Your task to perform on an android device: Open the Play Movies app and select the watchlist tab. Image 0: 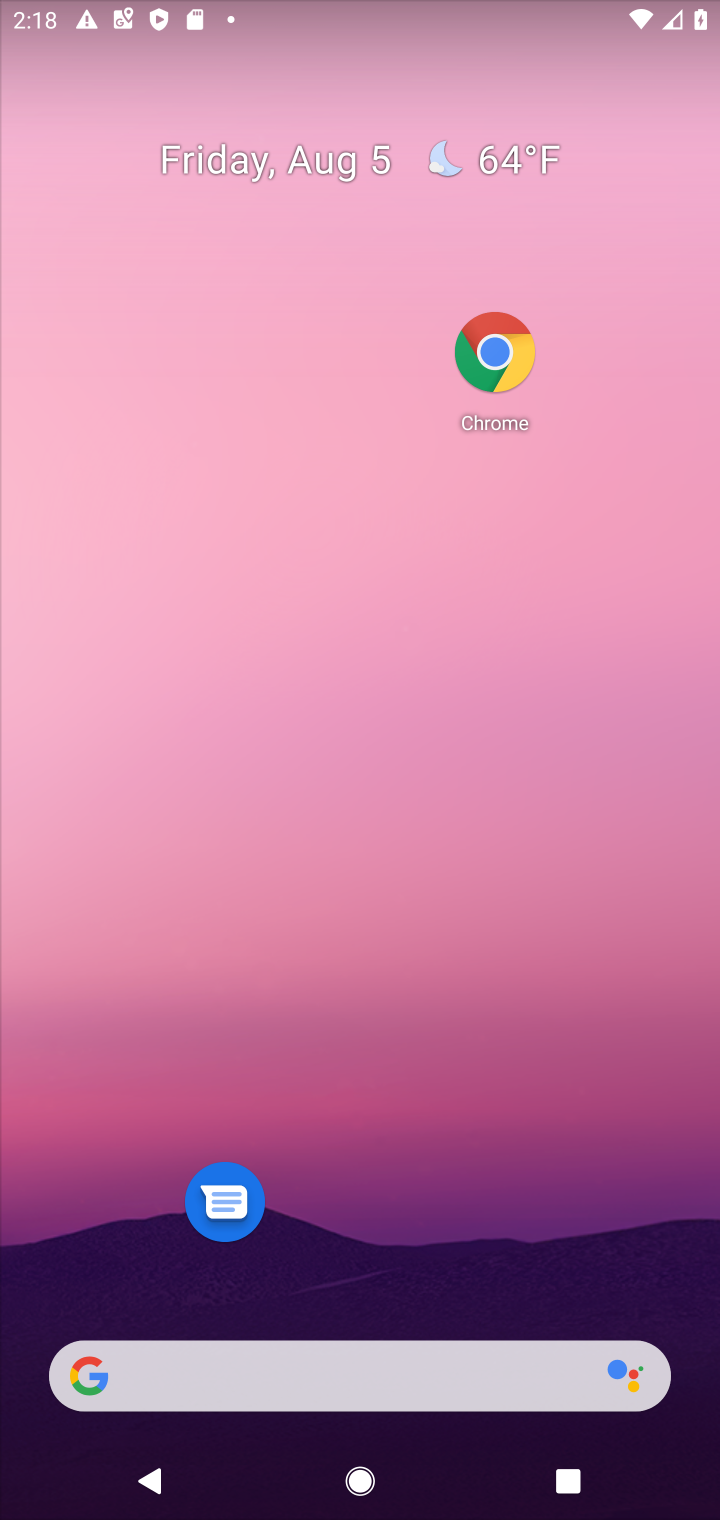
Step 0: drag from (500, 1111) to (223, 102)
Your task to perform on an android device: Open the Play Movies app and select the watchlist tab. Image 1: 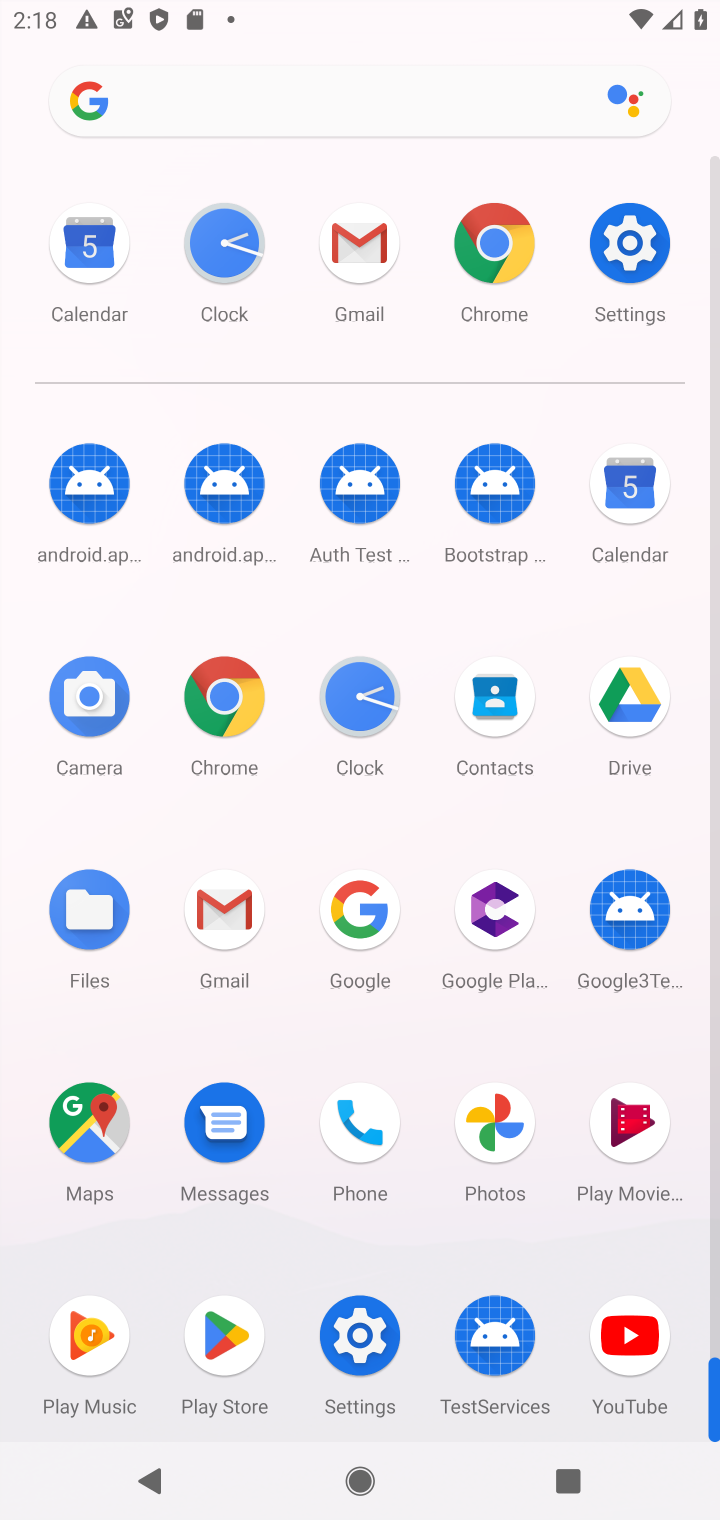
Step 1: click (641, 1127)
Your task to perform on an android device: Open the Play Movies app and select the watchlist tab. Image 2: 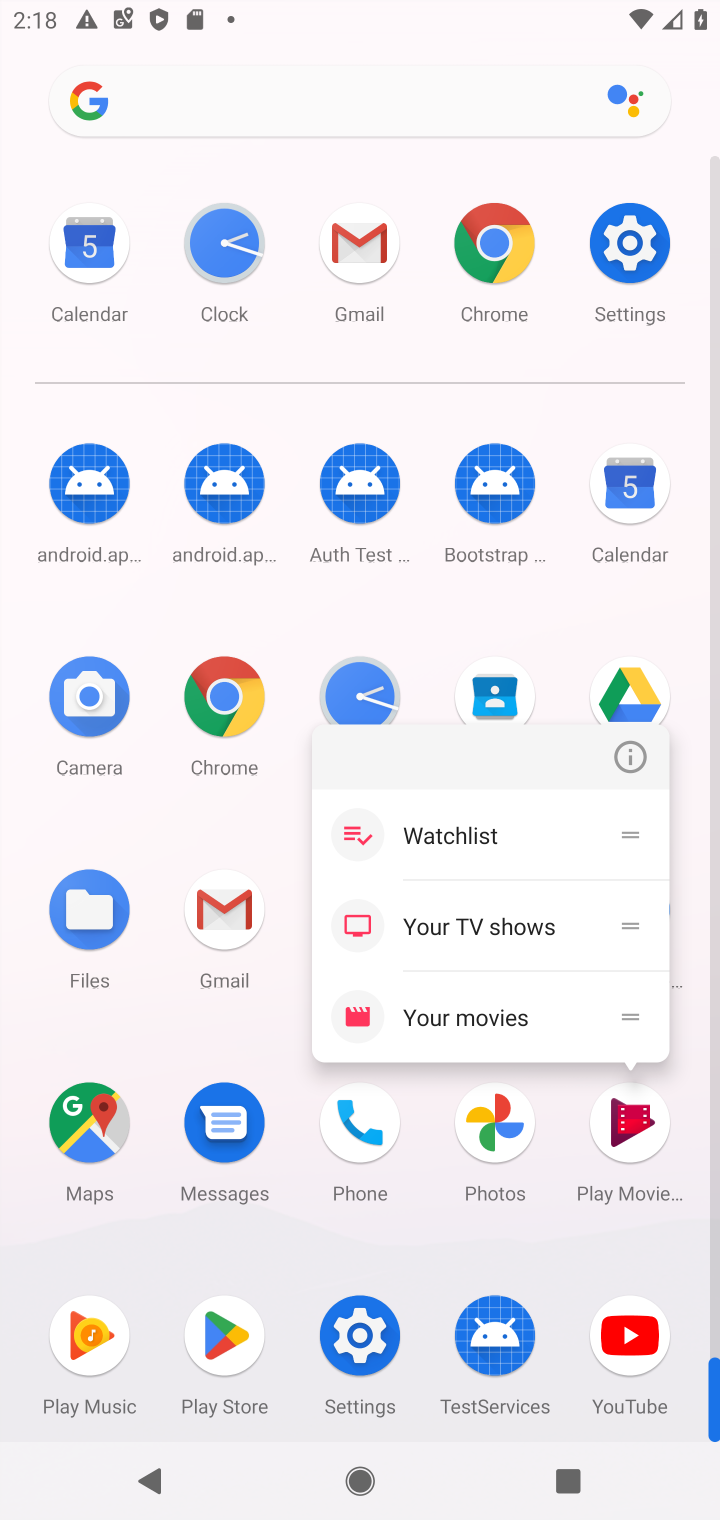
Step 2: click (624, 1121)
Your task to perform on an android device: Open the Play Movies app and select the watchlist tab. Image 3: 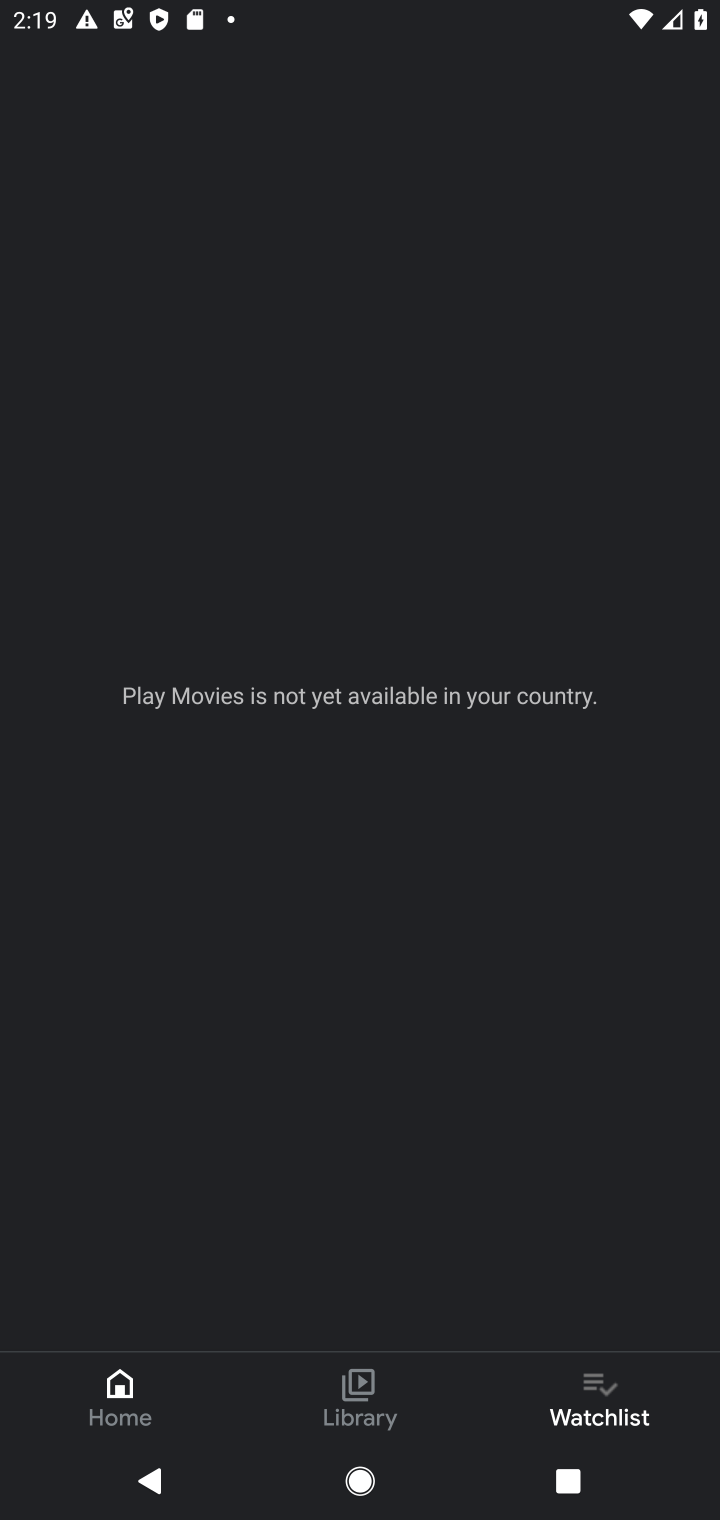
Step 3: click (575, 1389)
Your task to perform on an android device: Open the Play Movies app and select the watchlist tab. Image 4: 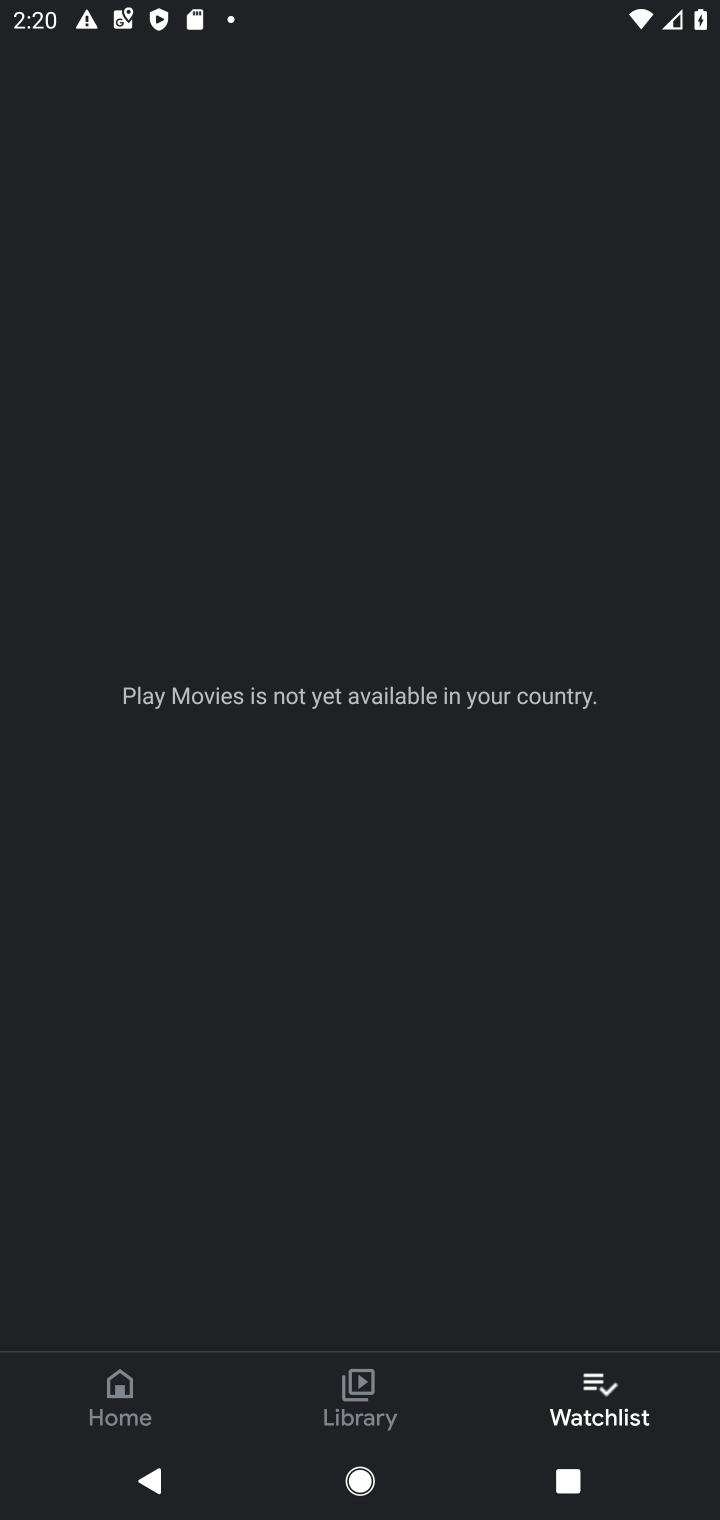
Step 4: task complete